Your task to perform on an android device: install app "PUBG MOBILE" Image 0: 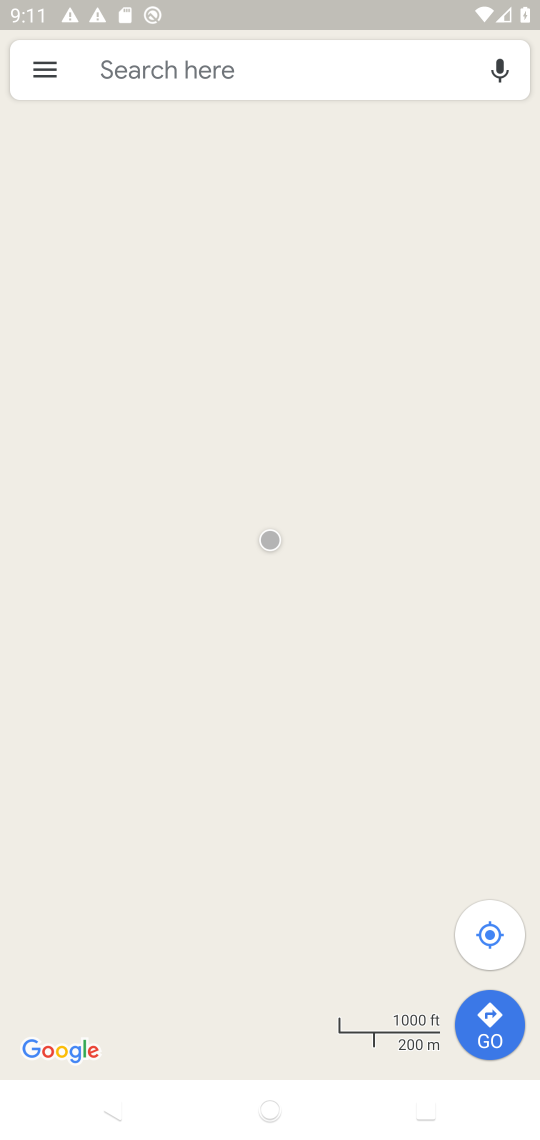
Step 0: press home button
Your task to perform on an android device: install app "PUBG MOBILE" Image 1: 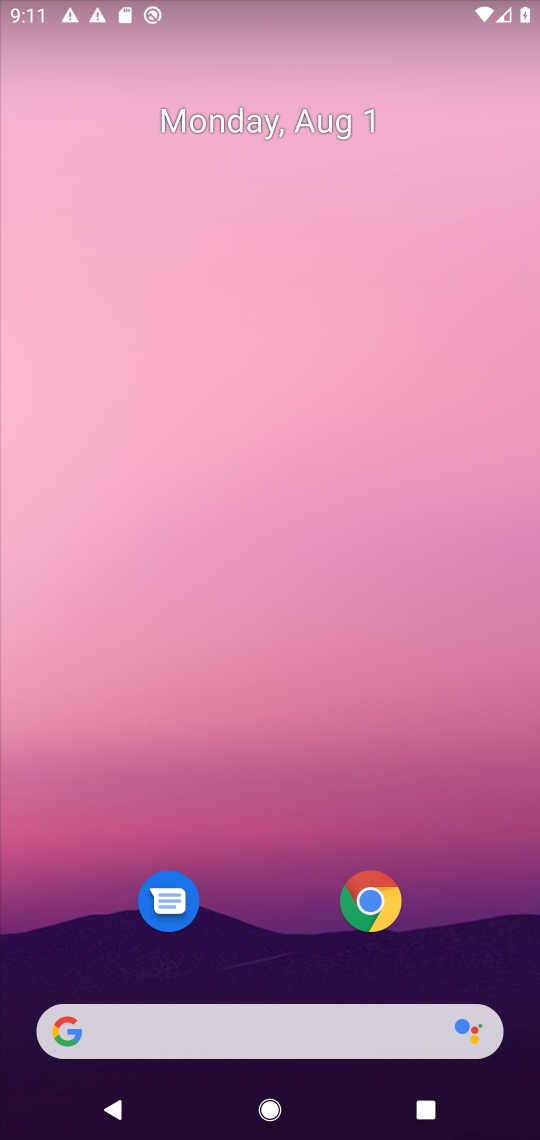
Step 1: drag from (250, 931) to (250, 398)
Your task to perform on an android device: install app "PUBG MOBILE" Image 2: 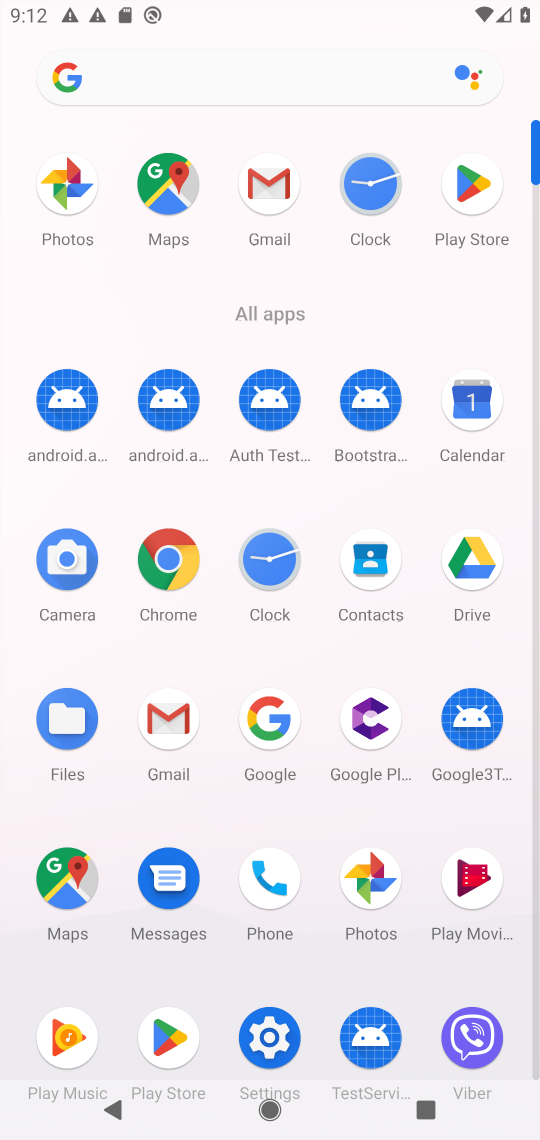
Step 2: click (480, 173)
Your task to perform on an android device: install app "PUBG MOBILE" Image 3: 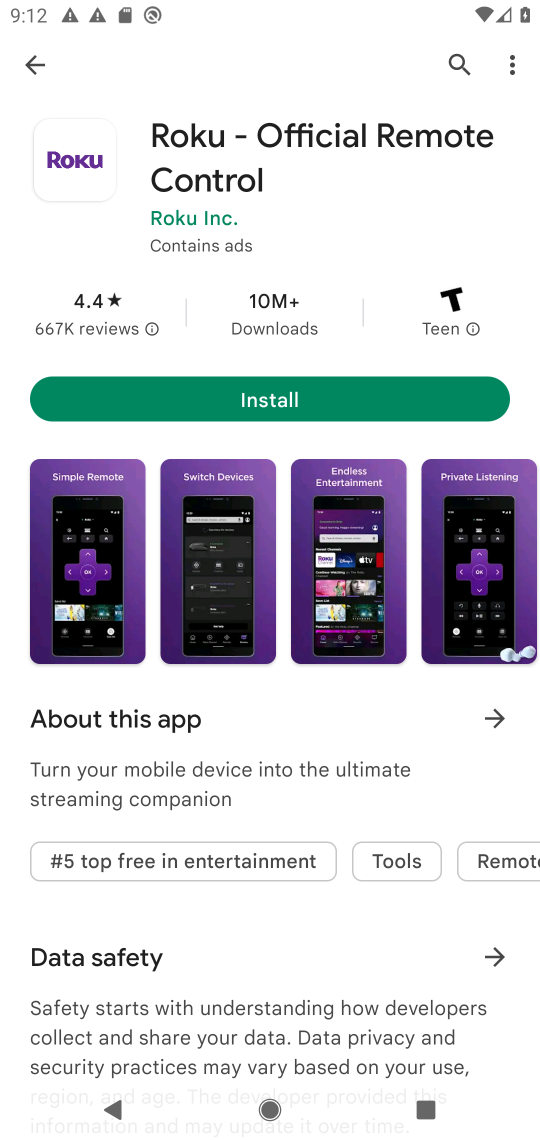
Step 3: click (462, 48)
Your task to perform on an android device: install app "PUBG MOBILE" Image 4: 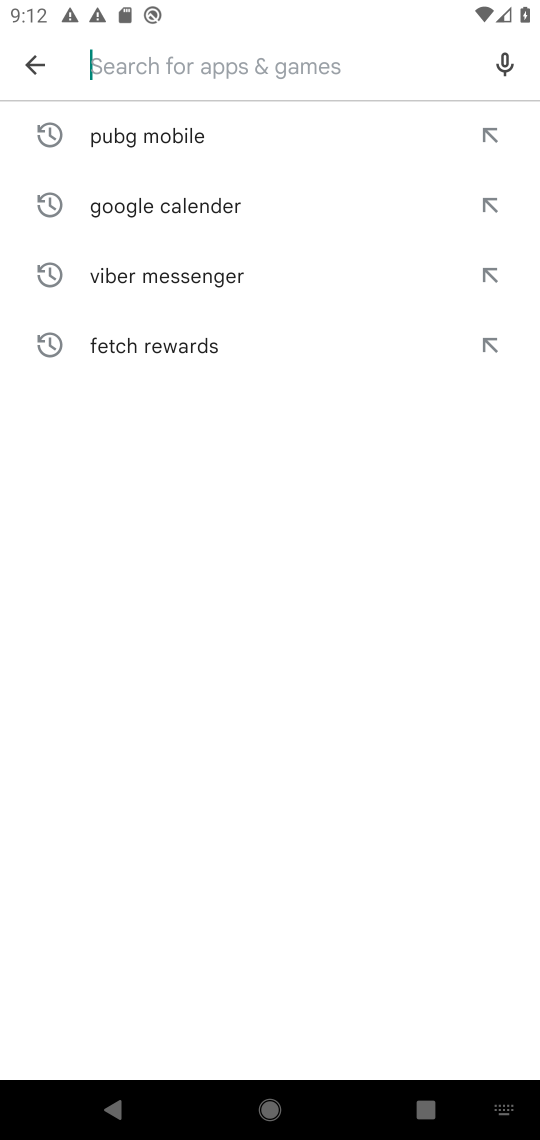
Step 4: type "pubg mobile"
Your task to perform on an android device: install app "PUBG MOBILE" Image 5: 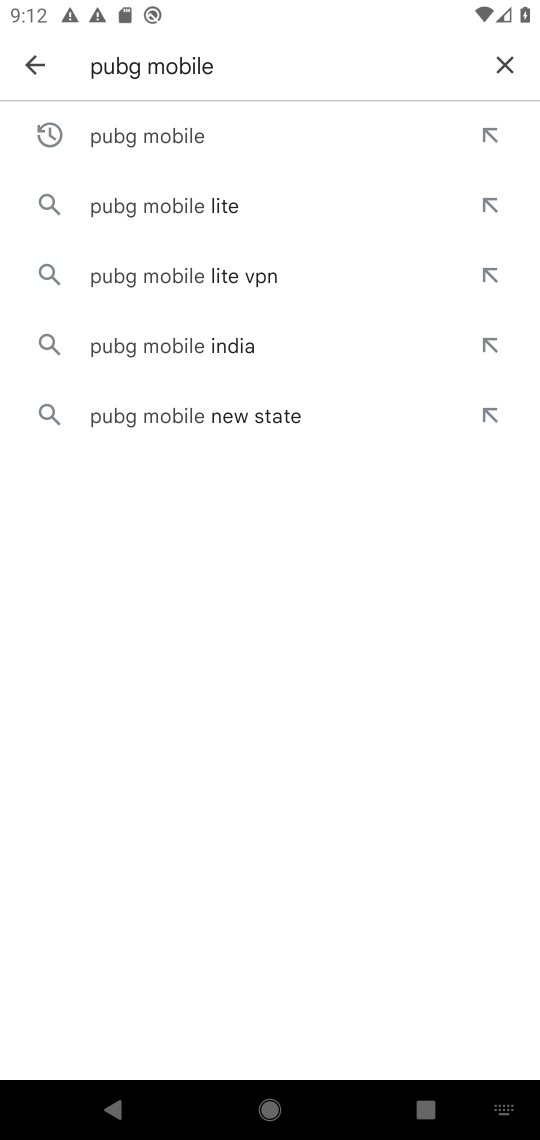
Step 5: click (351, 128)
Your task to perform on an android device: install app "PUBG MOBILE" Image 6: 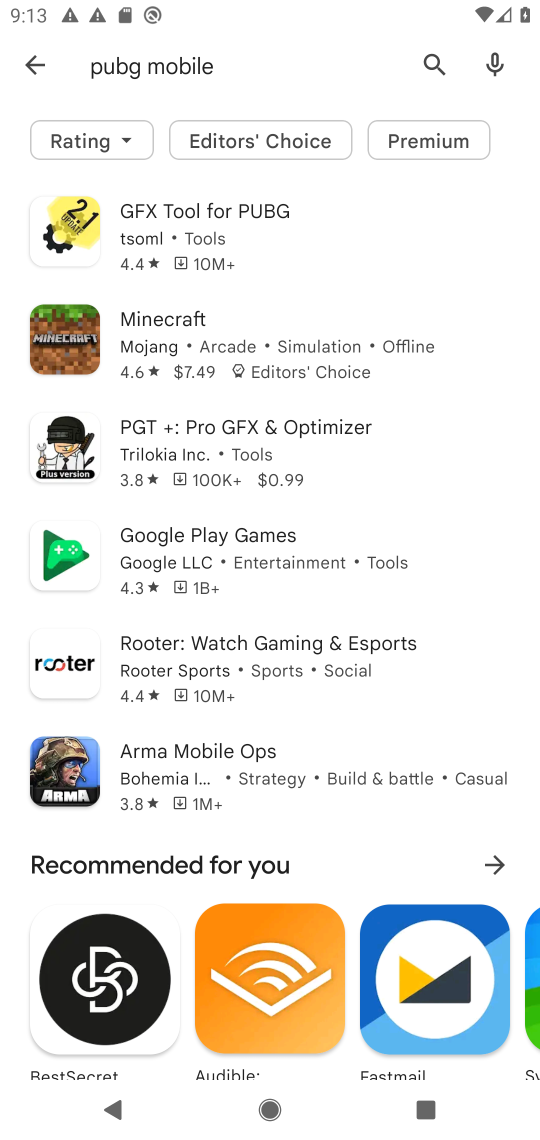
Step 6: task complete